Your task to perform on an android device: Open Yahoo.com Image 0: 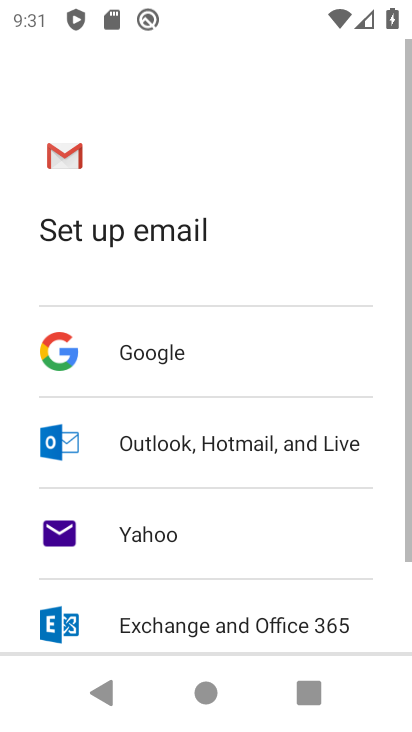
Step 0: press home button
Your task to perform on an android device: Open Yahoo.com Image 1: 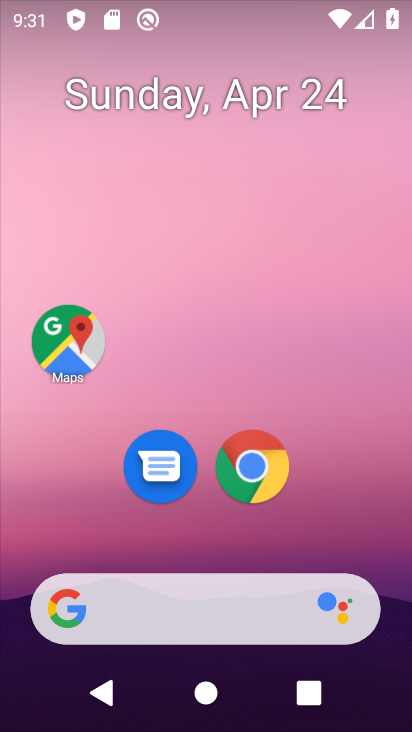
Step 1: click (269, 459)
Your task to perform on an android device: Open Yahoo.com Image 2: 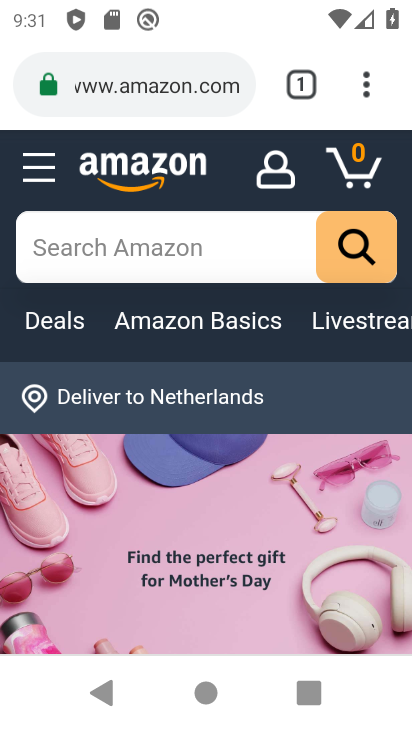
Step 2: click (313, 103)
Your task to perform on an android device: Open Yahoo.com Image 3: 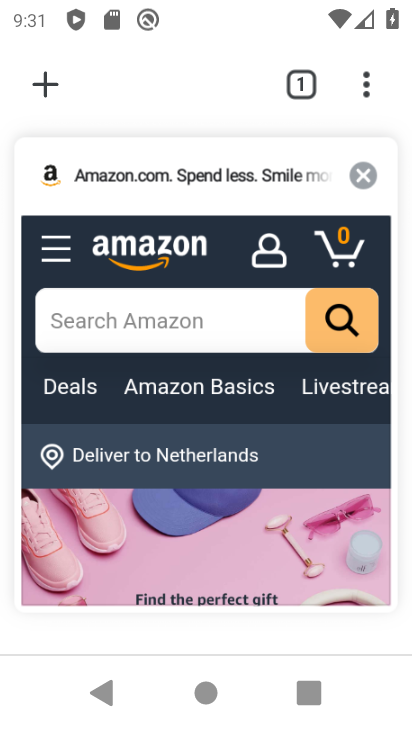
Step 3: click (360, 177)
Your task to perform on an android device: Open Yahoo.com Image 4: 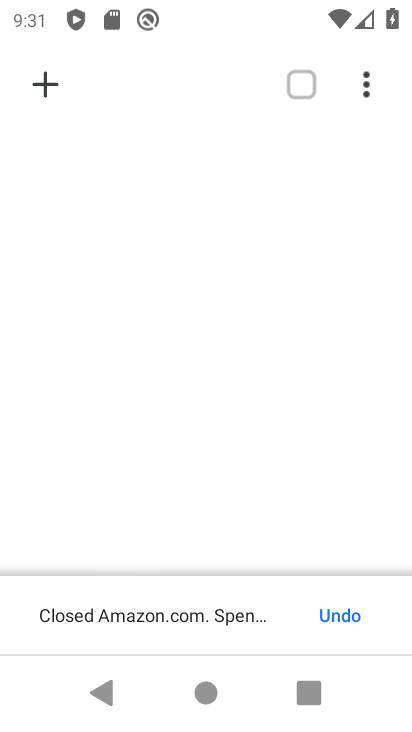
Step 4: click (53, 78)
Your task to perform on an android device: Open Yahoo.com Image 5: 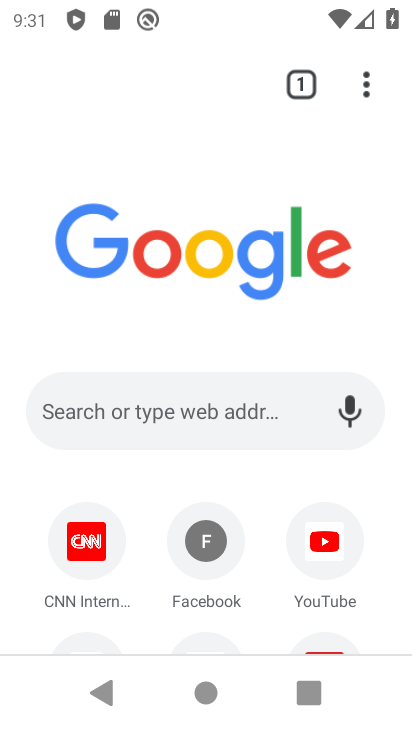
Step 5: drag from (200, 315) to (154, 127)
Your task to perform on an android device: Open Yahoo.com Image 6: 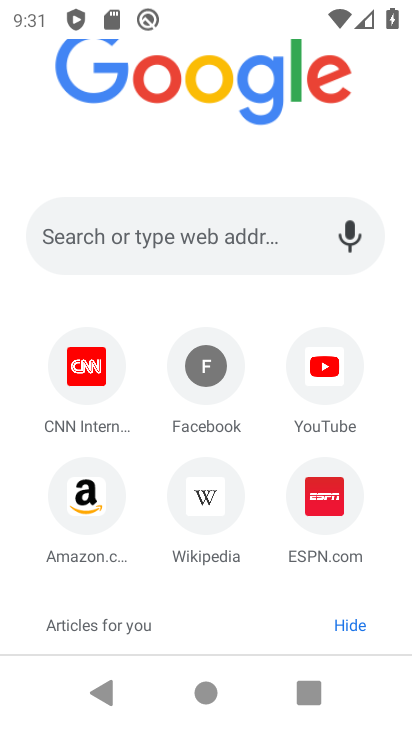
Step 6: click (189, 225)
Your task to perform on an android device: Open Yahoo.com Image 7: 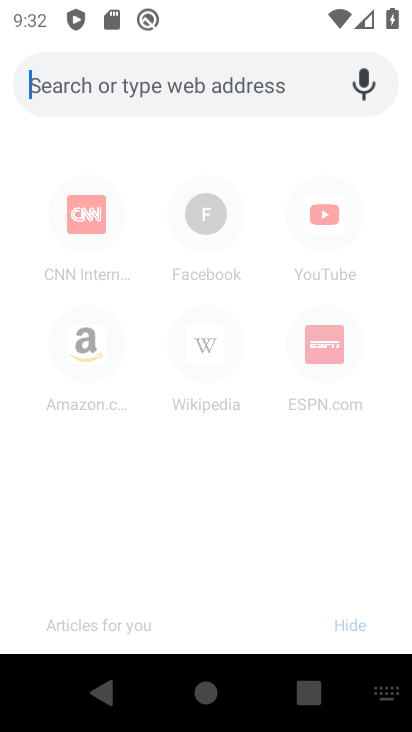
Step 7: type "yahoo.com"
Your task to perform on an android device: Open Yahoo.com Image 8: 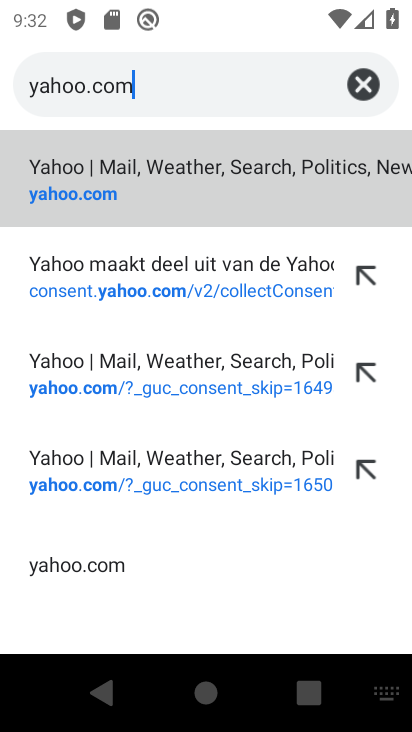
Step 8: click (139, 183)
Your task to perform on an android device: Open Yahoo.com Image 9: 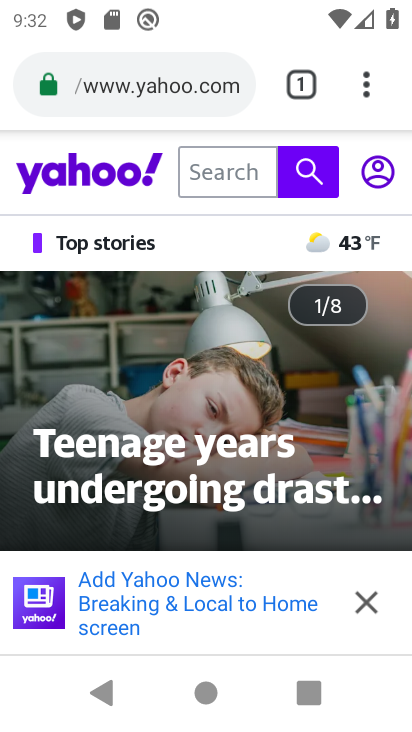
Step 9: task complete